Your task to perform on an android device: Open the map Image 0: 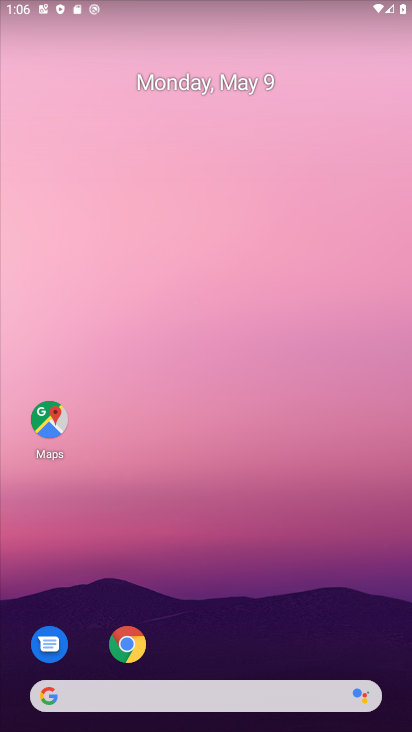
Step 0: drag from (221, 562) to (229, 192)
Your task to perform on an android device: Open the map Image 1: 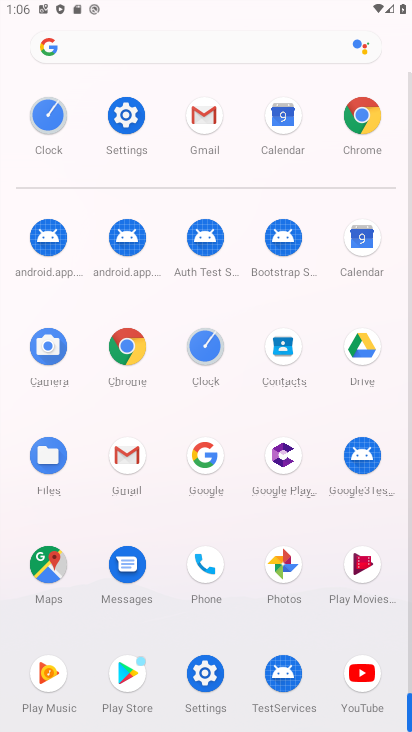
Step 1: click (49, 581)
Your task to perform on an android device: Open the map Image 2: 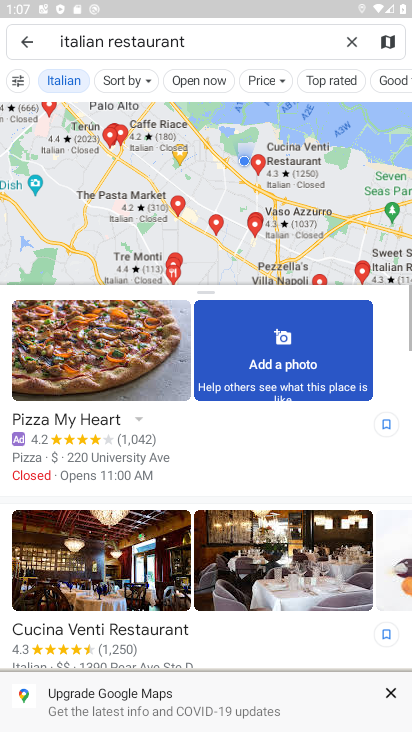
Step 2: task complete